Your task to perform on an android device: toggle show notifications on the lock screen Image 0: 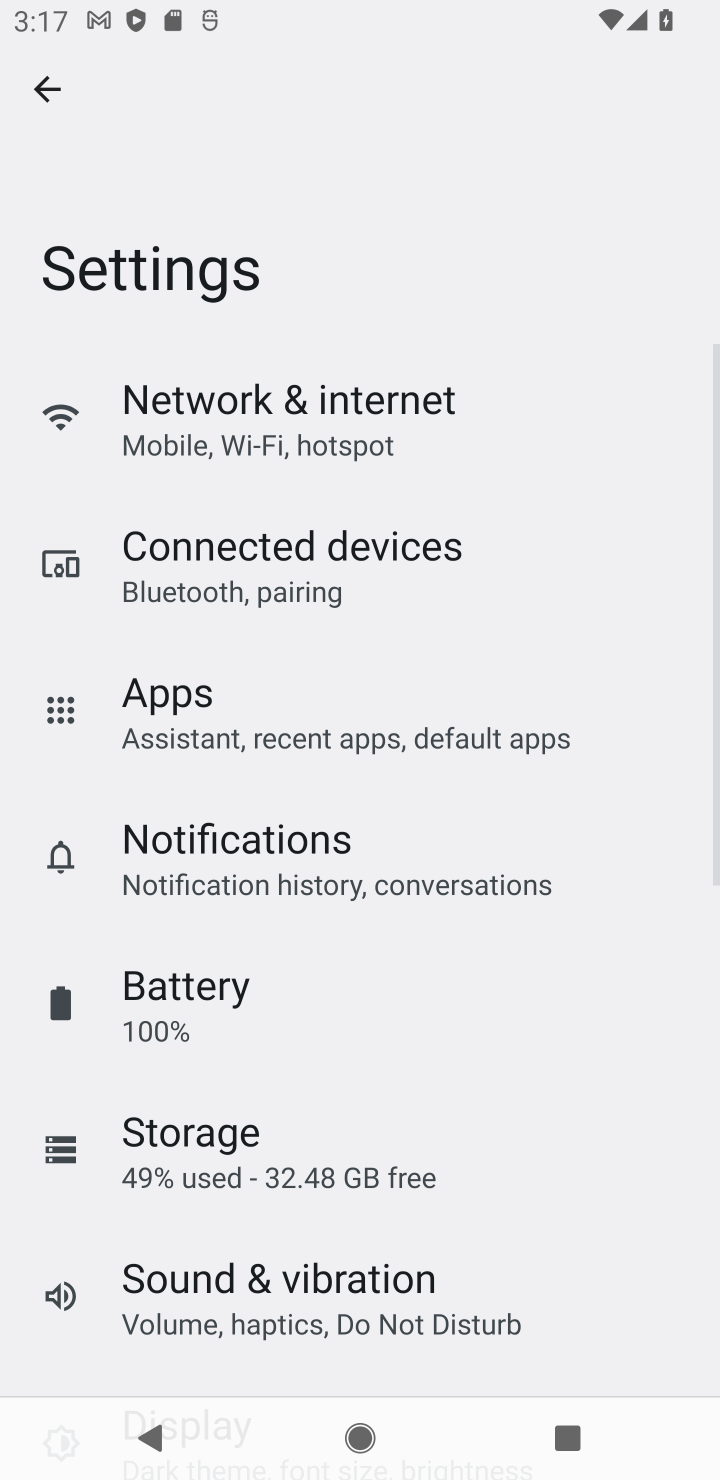
Step 0: press home button
Your task to perform on an android device: toggle show notifications on the lock screen Image 1: 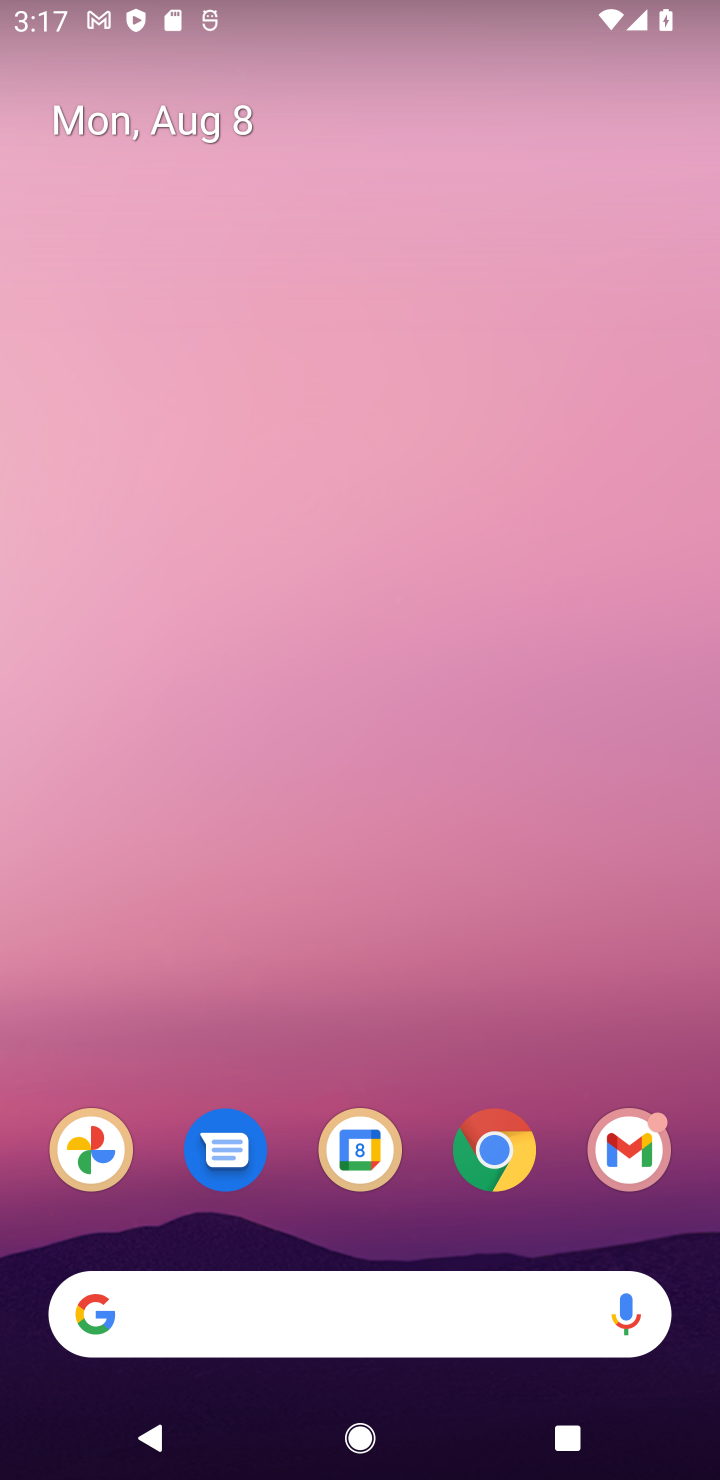
Step 1: drag from (388, 1243) to (255, 154)
Your task to perform on an android device: toggle show notifications on the lock screen Image 2: 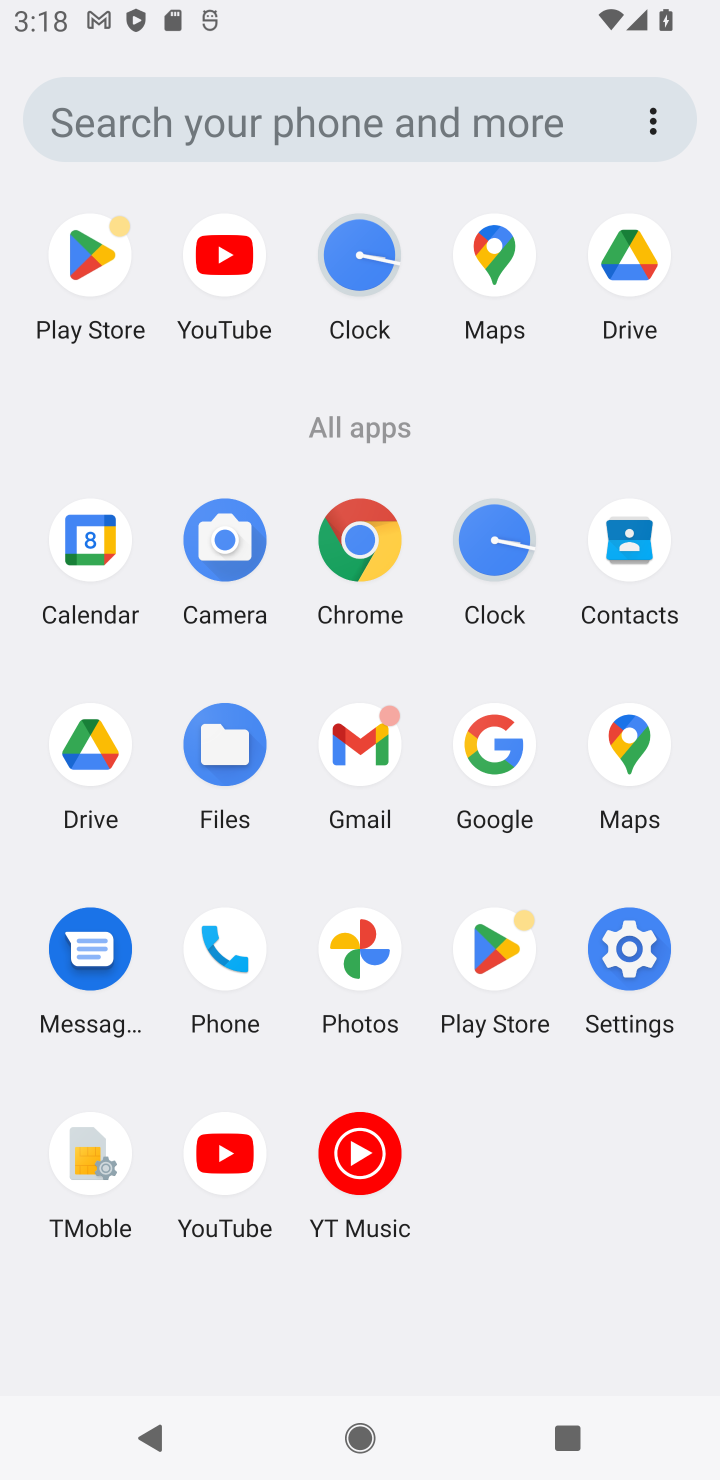
Step 2: click (652, 991)
Your task to perform on an android device: toggle show notifications on the lock screen Image 3: 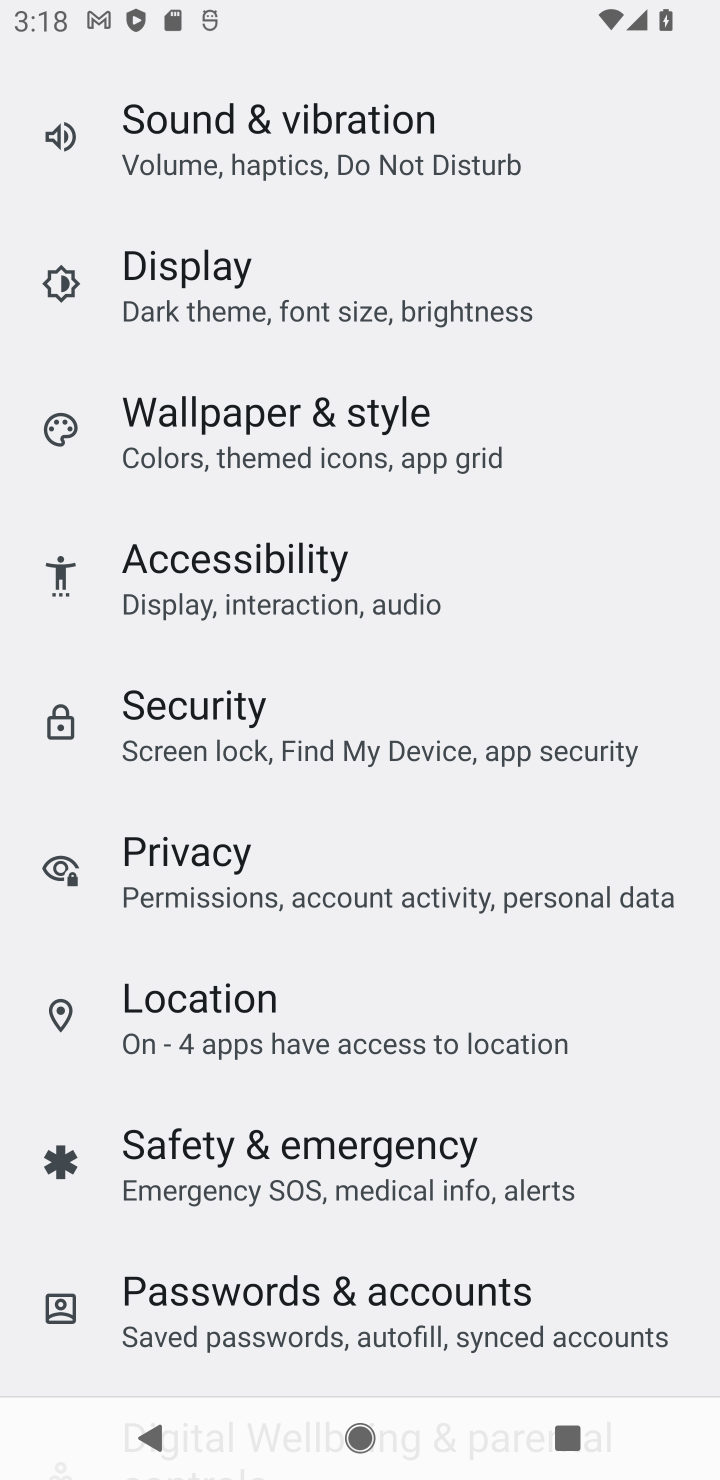
Step 3: task complete